Your task to perform on an android device: Go to Maps Image 0: 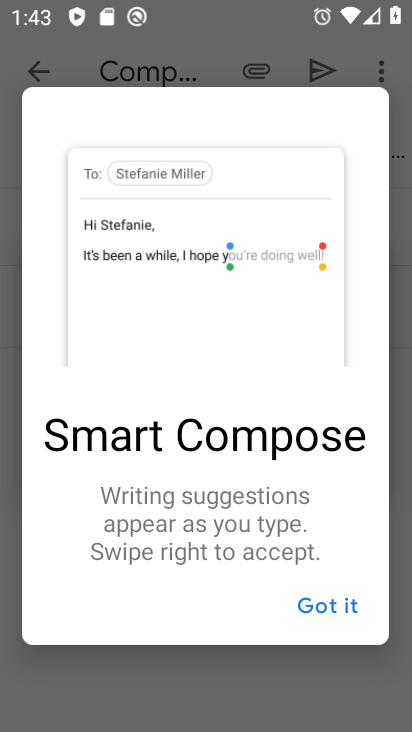
Step 0: press home button
Your task to perform on an android device: Go to Maps Image 1: 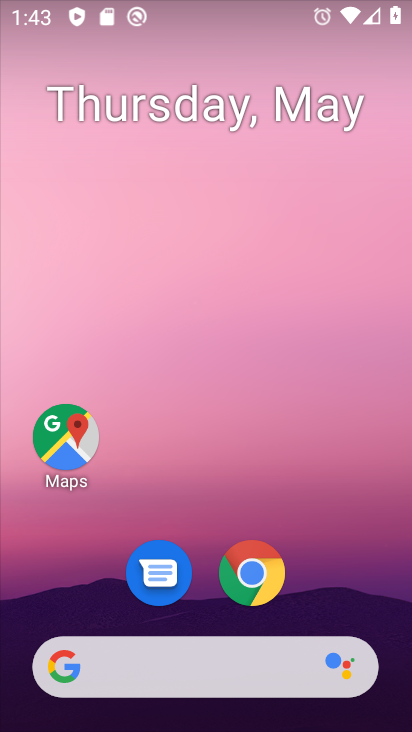
Step 1: click (40, 430)
Your task to perform on an android device: Go to Maps Image 2: 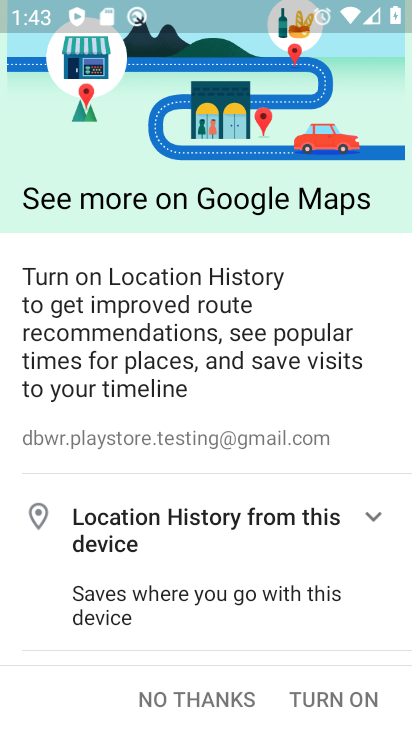
Step 2: click (366, 695)
Your task to perform on an android device: Go to Maps Image 3: 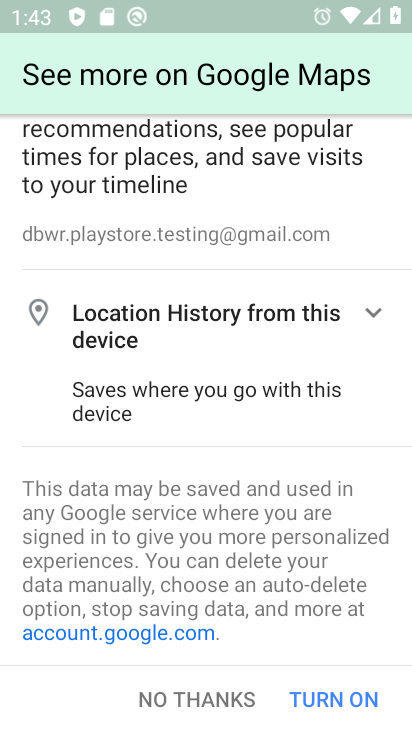
Step 3: click (366, 695)
Your task to perform on an android device: Go to Maps Image 4: 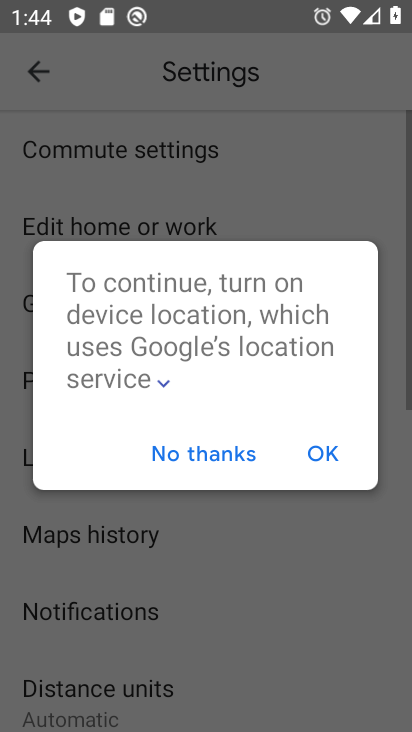
Step 4: click (324, 449)
Your task to perform on an android device: Go to Maps Image 5: 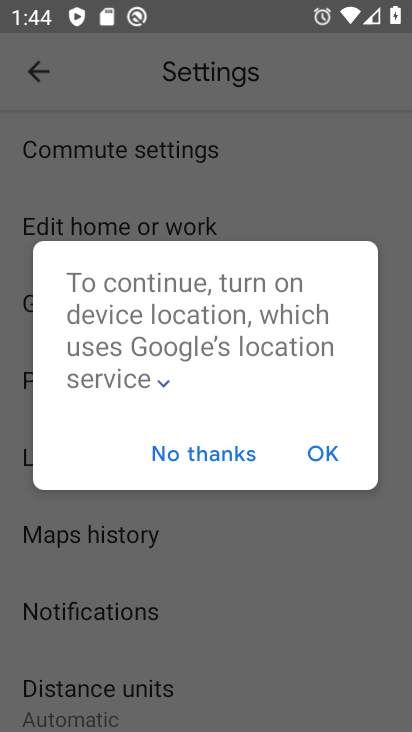
Step 5: click (329, 450)
Your task to perform on an android device: Go to Maps Image 6: 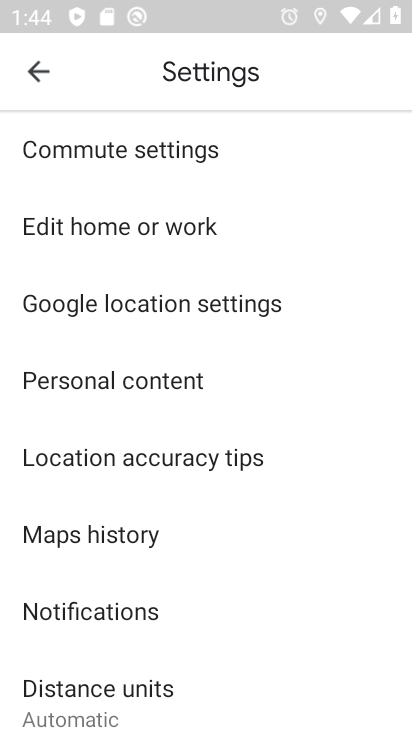
Step 6: click (33, 79)
Your task to perform on an android device: Go to Maps Image 7: 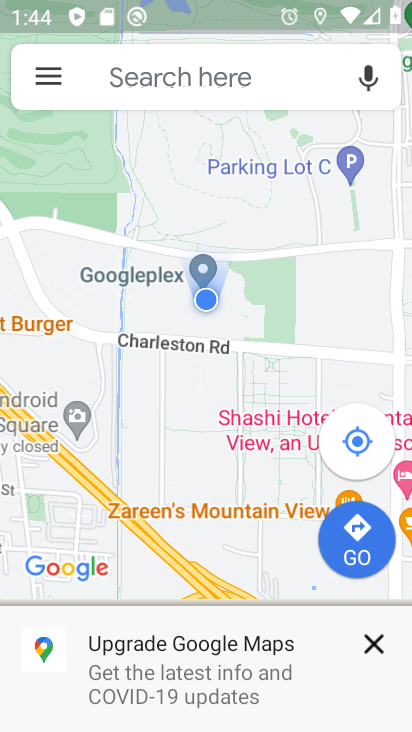
Step 7: task complete